Your task to perform on an android device: turn off picture-in-picture Image 0: 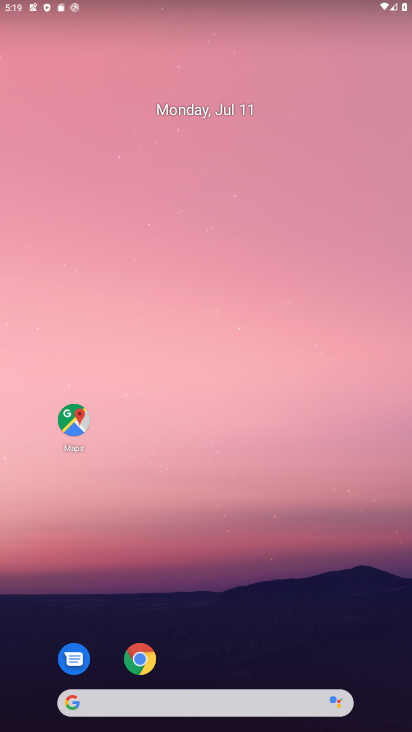
Step 0: drag from (363, 647) to (339, 89)
Your task to perform on an android device: turn off picture-in-picture Image 1: 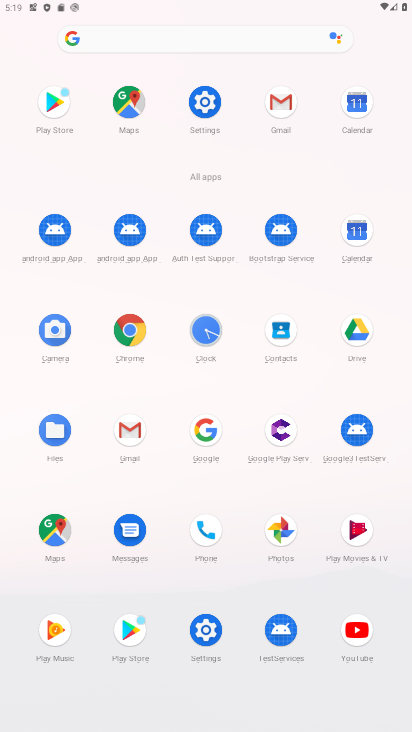
Step 1: click (207, 630)
Your task to perform on an android device: turn off picture-in-picture Image 2: 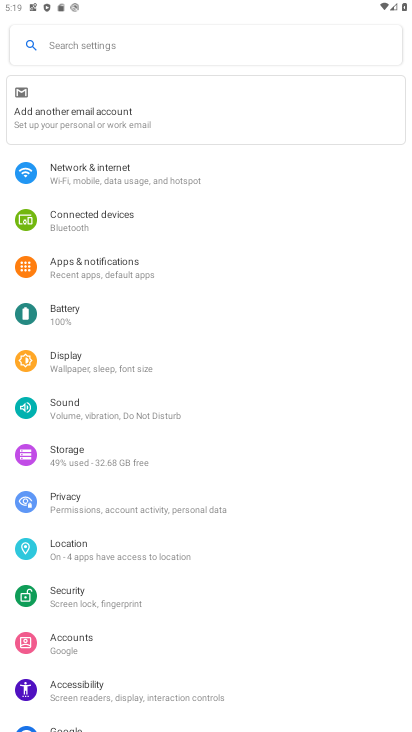
Step 2: click (99, 267)
Your task to perform on an android device: turn off picture-in-picture Image 3: 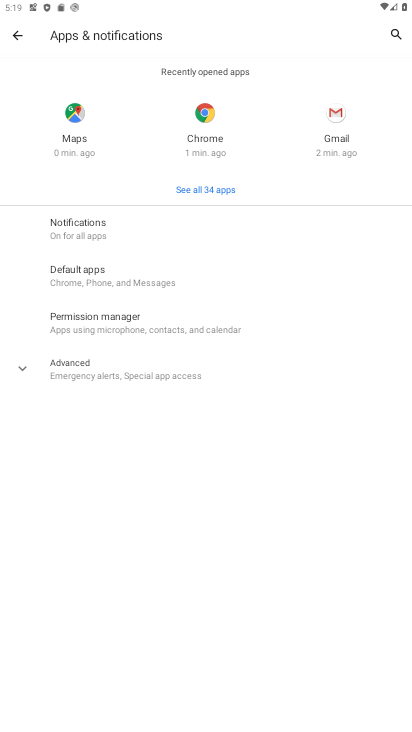
Step 3: click (45, 371)
Your task to perform on an android device: turn off picture-in-picture Image 4: 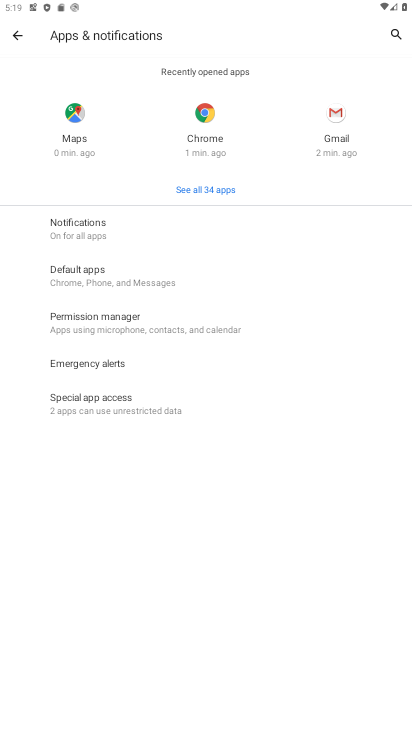
Step 4: click (81, 397)
Your task to perform on an android device: turn off picture-in-picture Image 5: 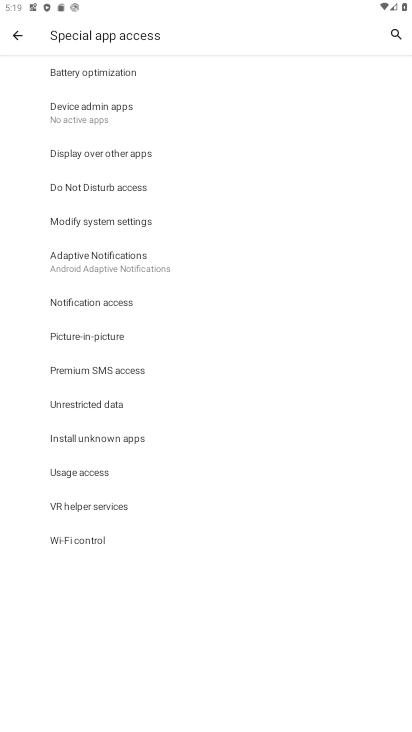
Step 5: click (76, 334)
Your task to perform on an android device: turn off picture-in-picture Image 6: 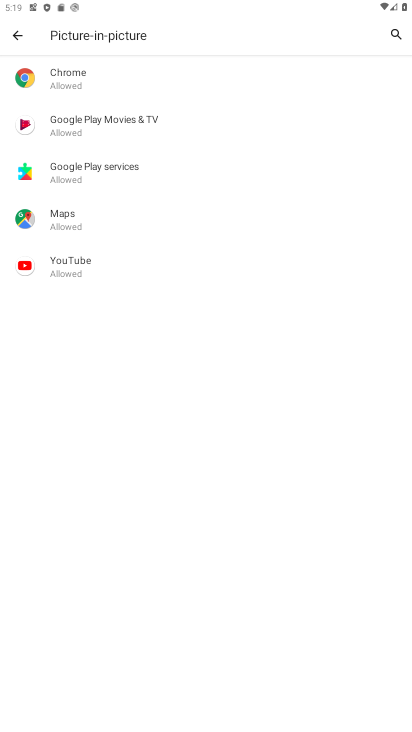
Step 6: click (73, 271)
Your task to perform on an android device: turn off picture-in-picture Image 7: 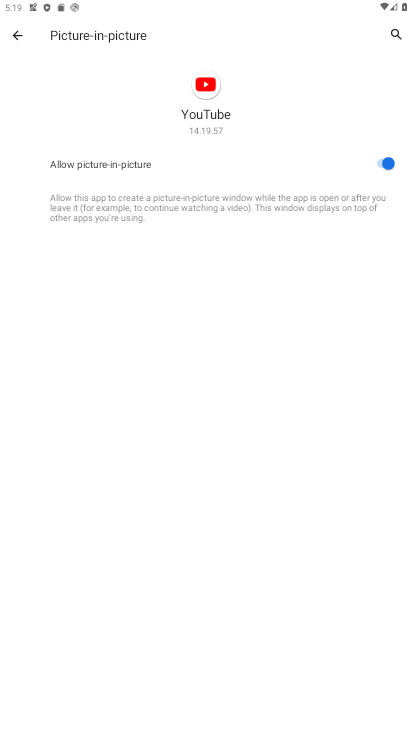
Step 7: click (382, 162)
Your task to perform on an android device: turn off picture-in-picture Image 8: 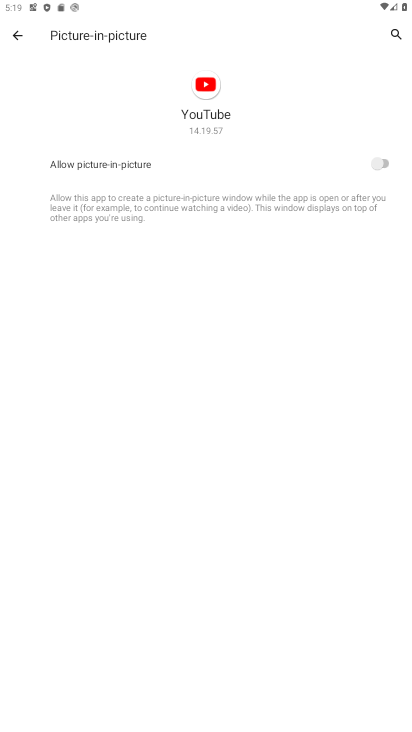
Step 8: task complete